Your task to perform on an android device: turn on data saver in the chrome app Image 0: 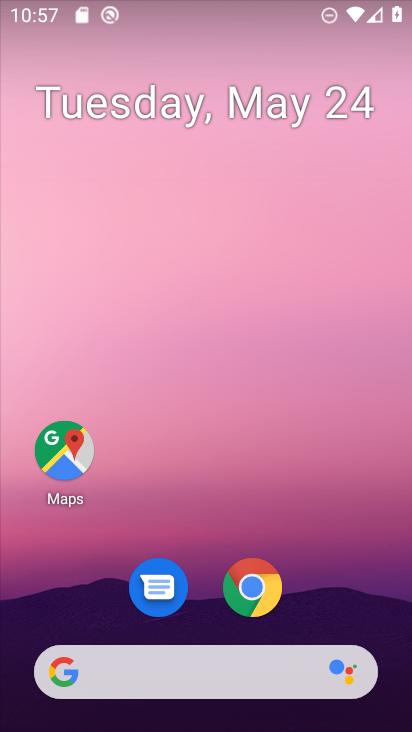
Step 0: drag from (368, 574) to (390, 627)
Your task to perform on an android device: turn on data saver in the chrome app Image 1: 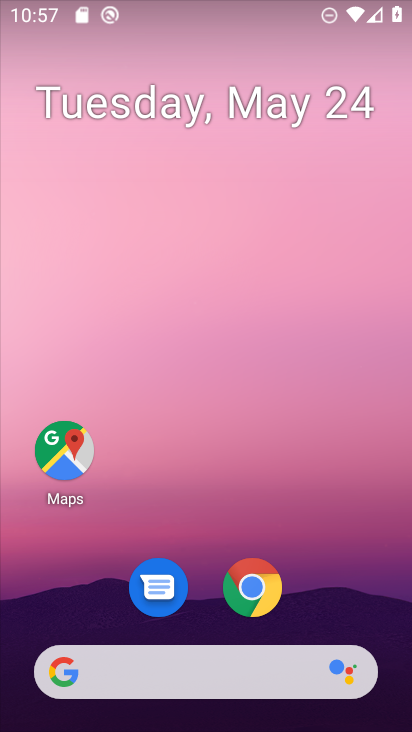
Step 1: click (251, 592)
Your task to perform on an android device: turn on data saver in the chrome app Image 2: 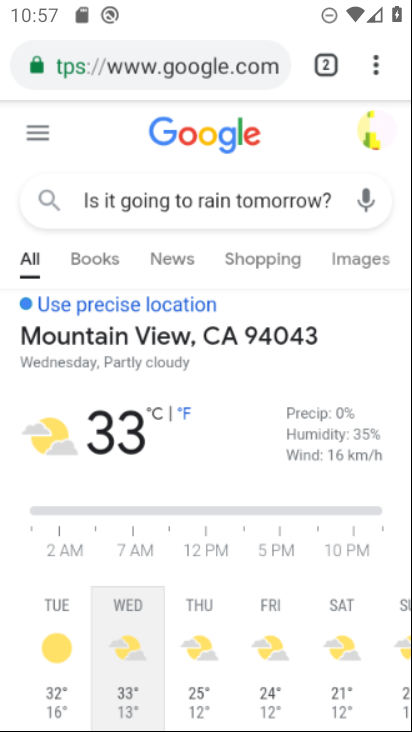
Step 2: click (251, 592)
Your task to perform on an android device: turn on data saver in the chrome app Image 3: 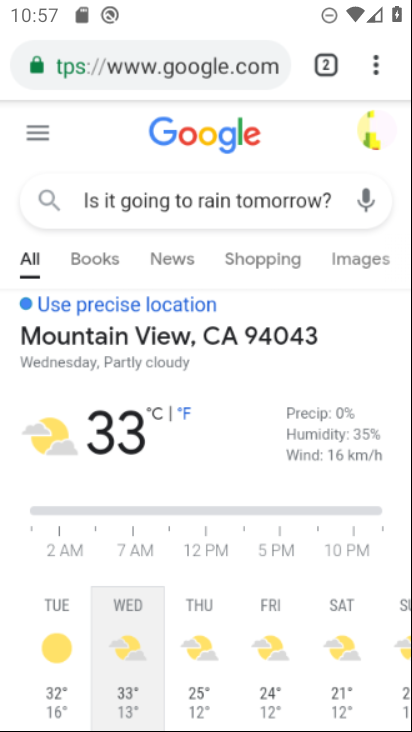
Step 3: click (251, 592)
Your task to perform on an android device: turn on data saver in the chrome app Image 4: 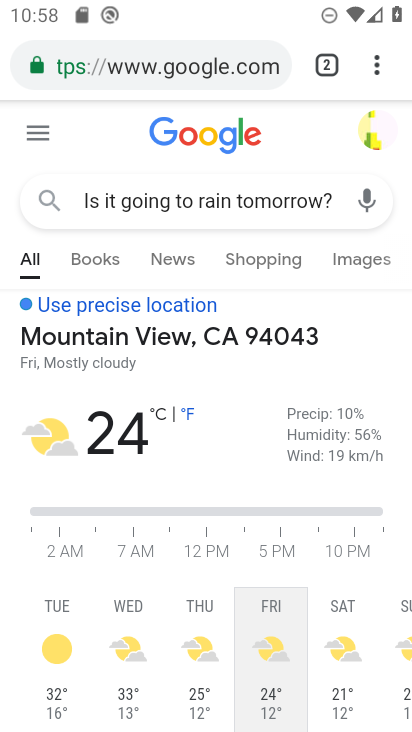
Step 4: drag from (386, 65) to (214, 636)
Your task to perform on an android device: turn on data saver in the chrome app Image 5: 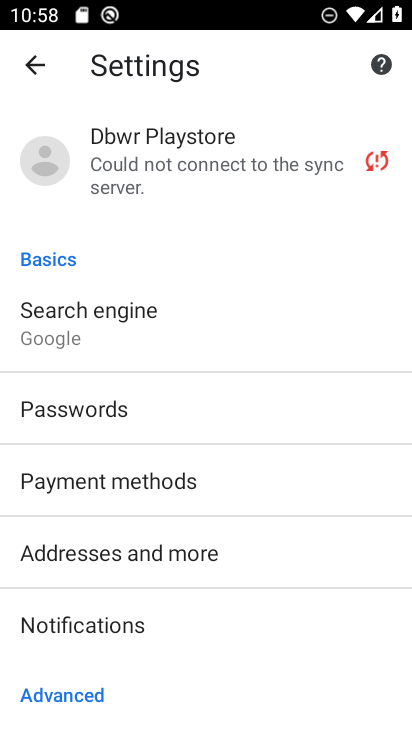
Step 5: drag from (179, 617) to (407, 289)
Your task to perform on an android device: turn on data saver in the chrome app Image 6: 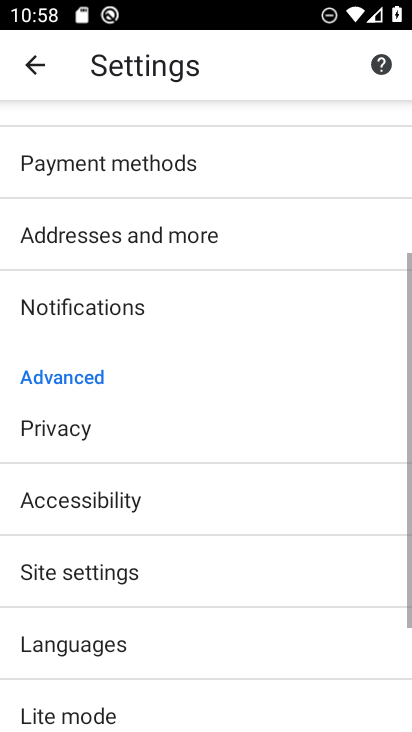
Step 6: click (51, 678)
Your task to perform on an android device: turn on data saver in the chrome app Image 7: 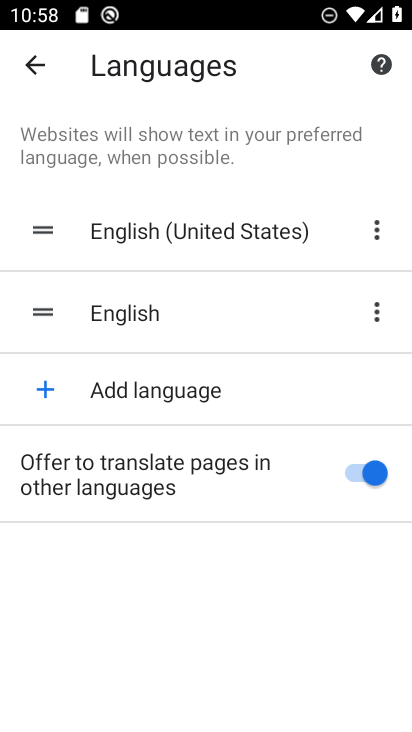
Step 7: click (43, 72)
Your task to perform on an android device: turn on data saver in the chrome app Image 8: 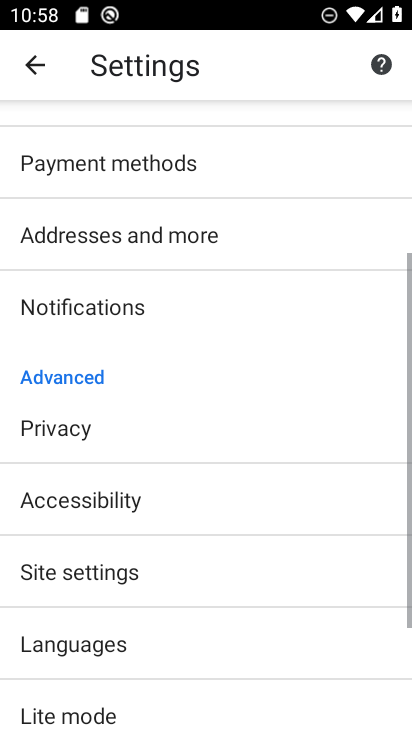
Step 8: click (103, 704)
Your task to perform on an android device: turn on data saver in the chrome app Image 9: 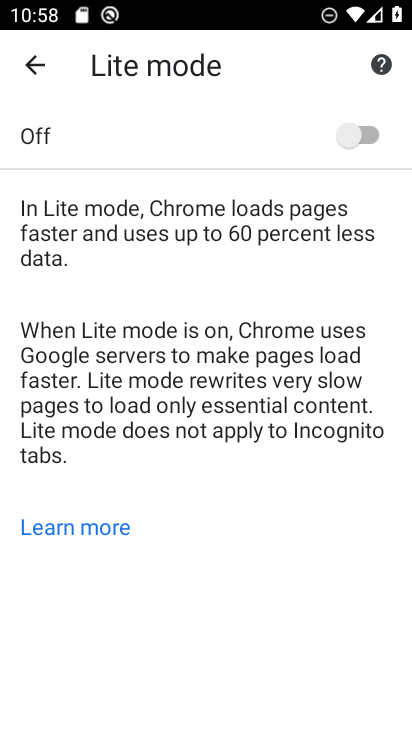
Step 9: click (299, 127)
Your task to perform on an android device: turn on data saver in the chrome app Image 10: 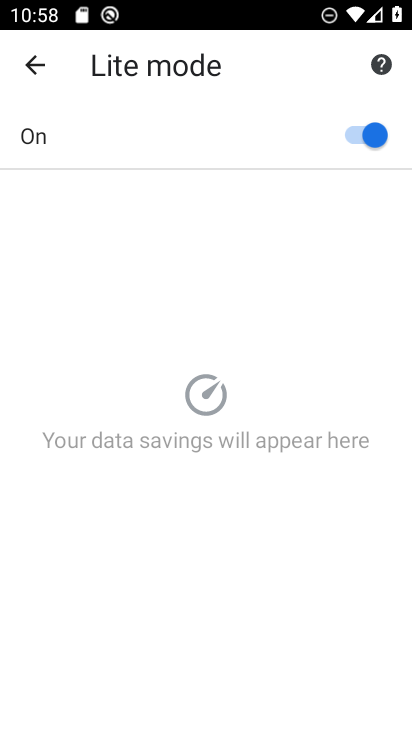
Step 10: task complete